Your task to perform on an android device: open app "Pinterest" (install if not already installed), go to login, and select forgot password Image 0: 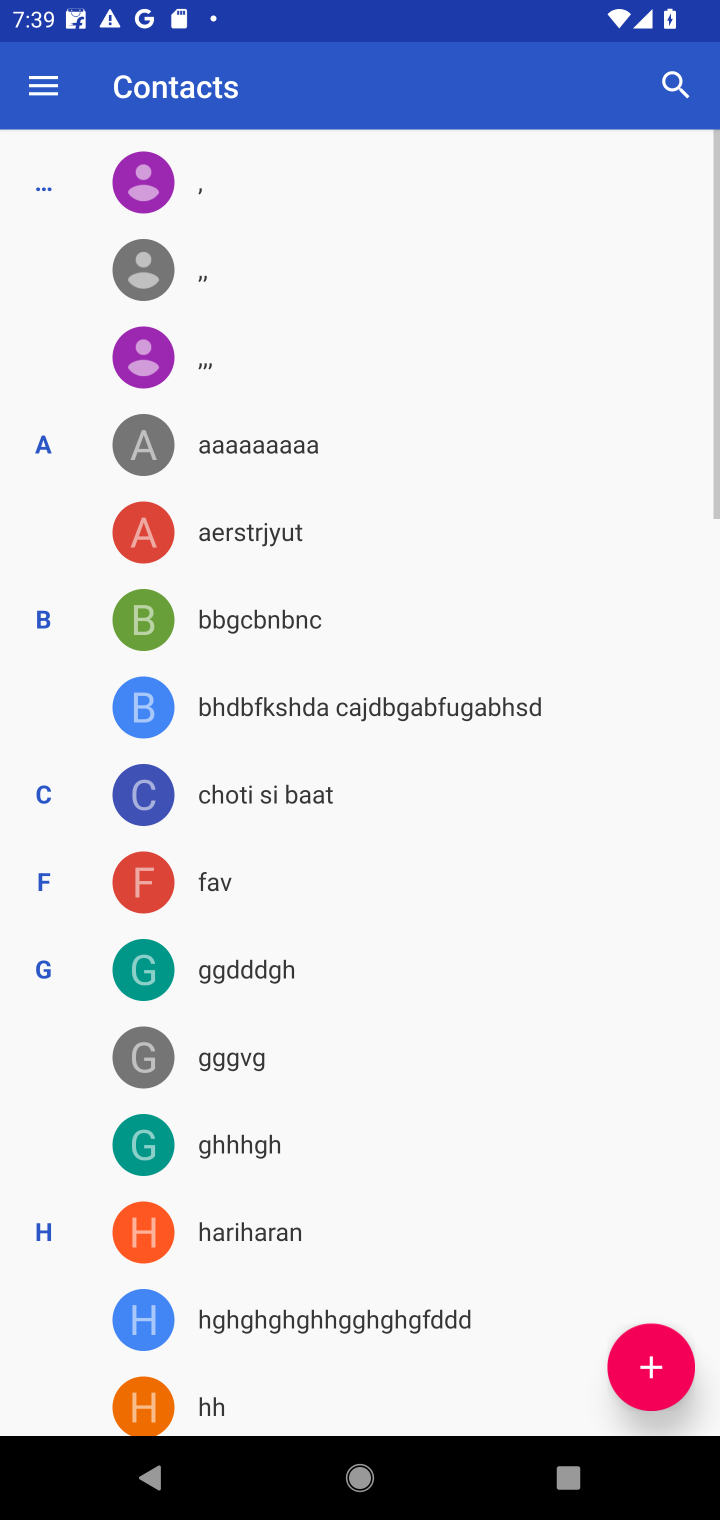
Step 0: press home button
Your task to perform on an android device: open app "Pinterest" (install if not already installed), go to login, and select forgot password Image 1: 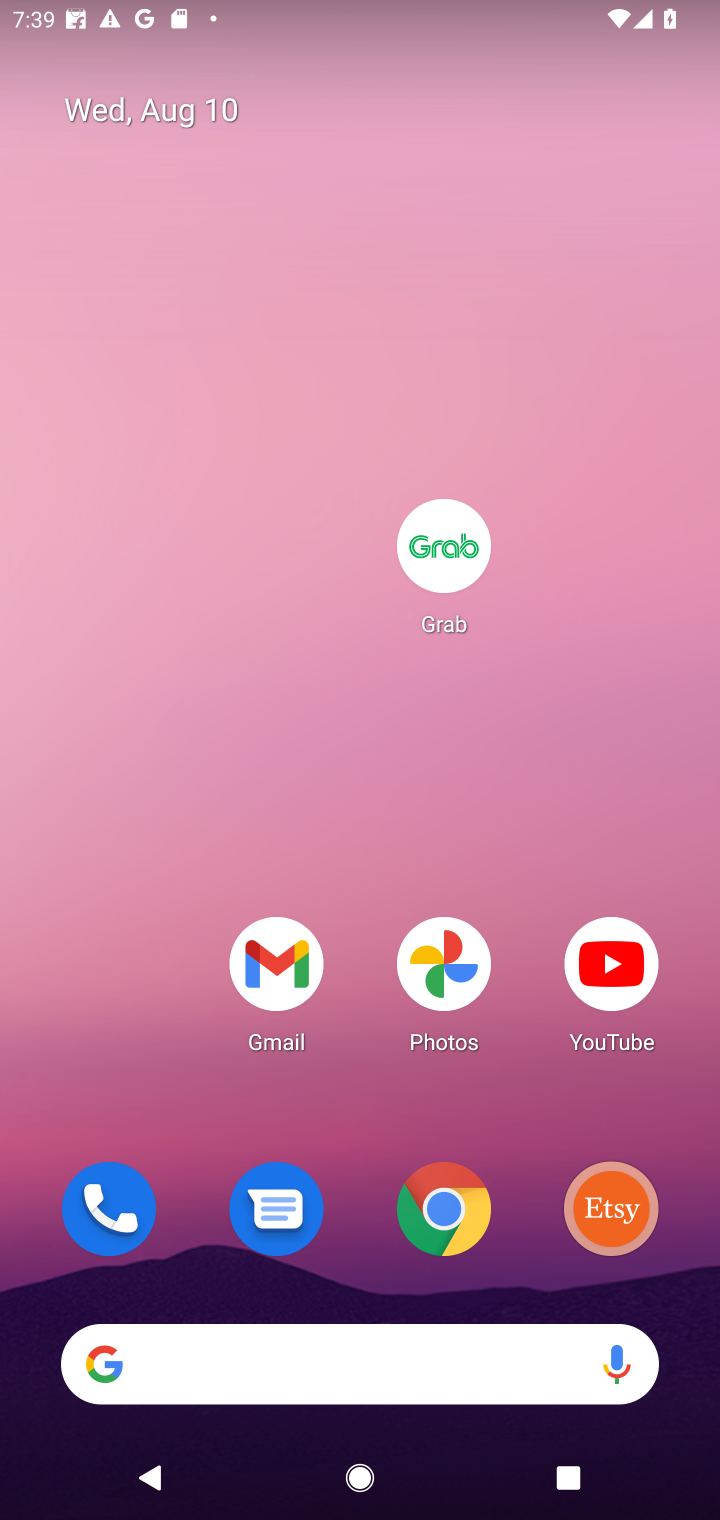
Step 1: drag from (391, 1320) to (458, 11)
Your task to perform on an android device: open app "Pinterest" (install if not already installed), go to login, and select forgot password Image 2: 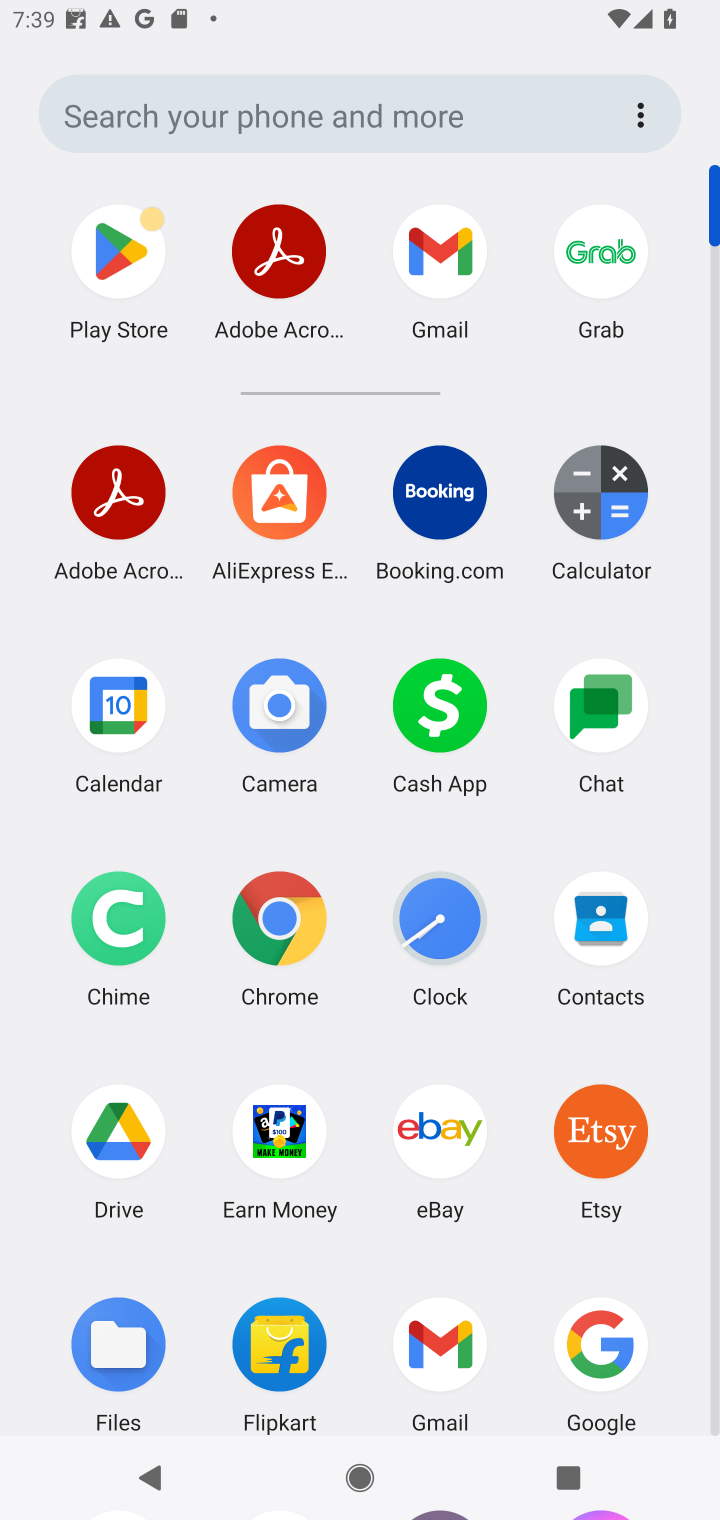
Step 2: click (159, 236)
Your task to perform on an android device: open app "Pinterest" (install if not already installed), go to login, and select forgot password Image 3: 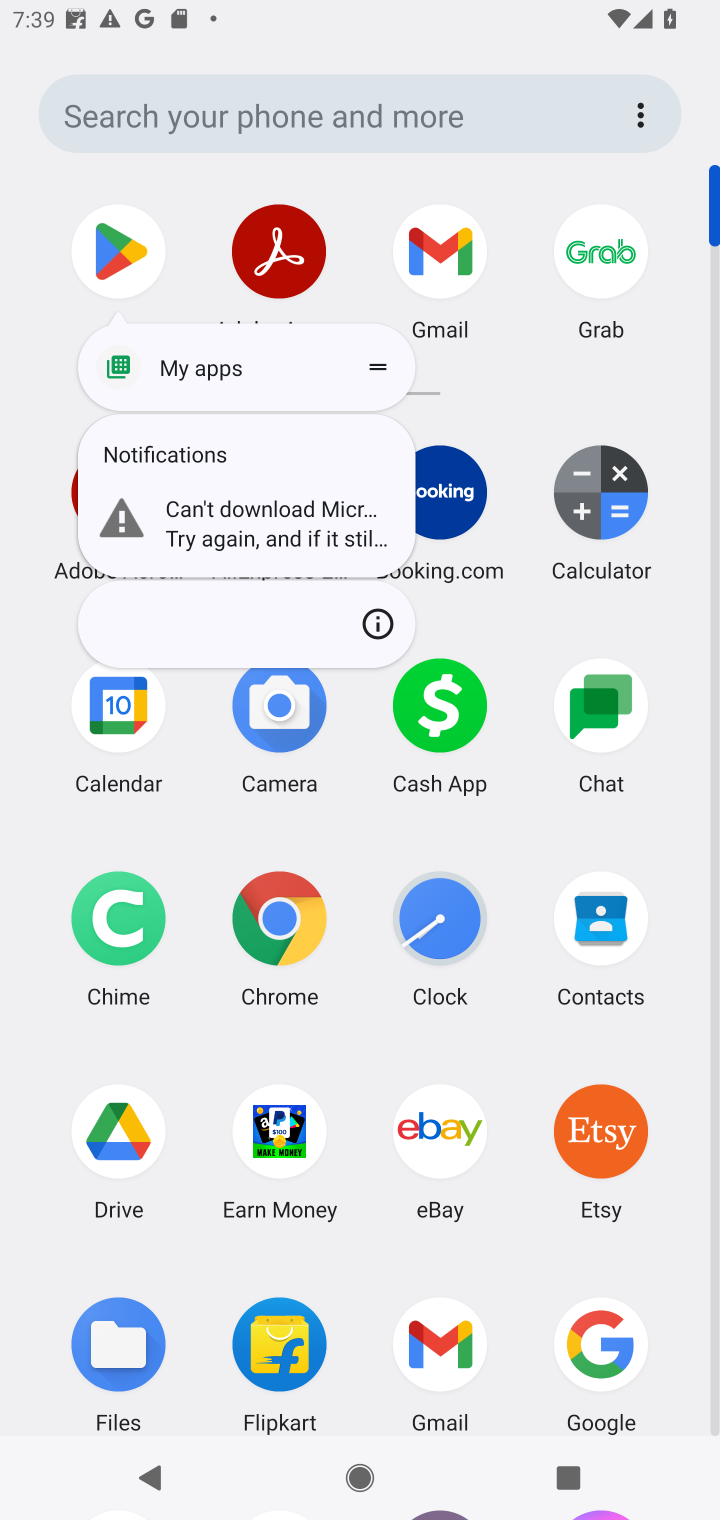
Step 3: click (72, 253)
Your task to perform on an android device: open app "Pinterest" (install if not already installed), go to login, and select forgot password Image 4: 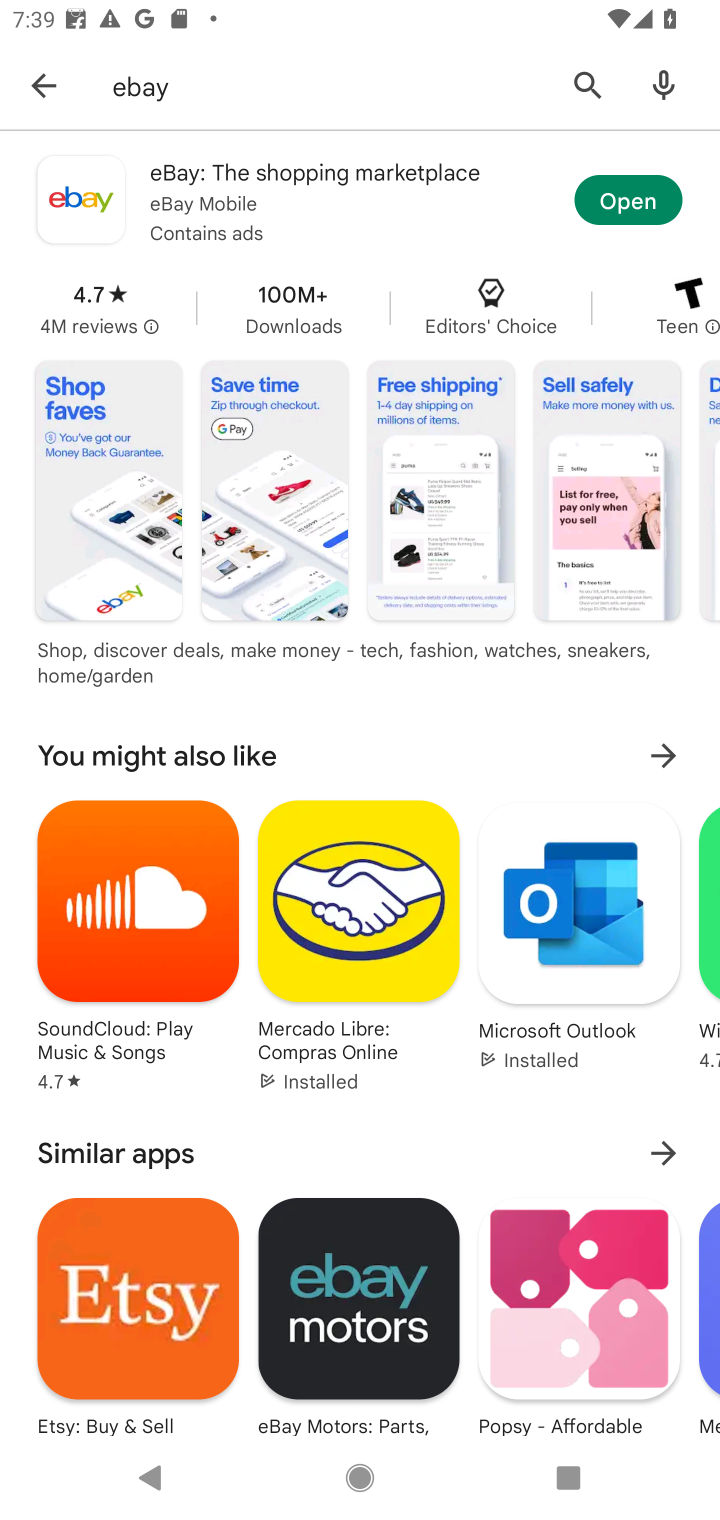
Step 4: click (540, 86)
Your task to perform on an android device: open app "Pinterest" (install if not already installed), go to login, and select forgot password Image 5: 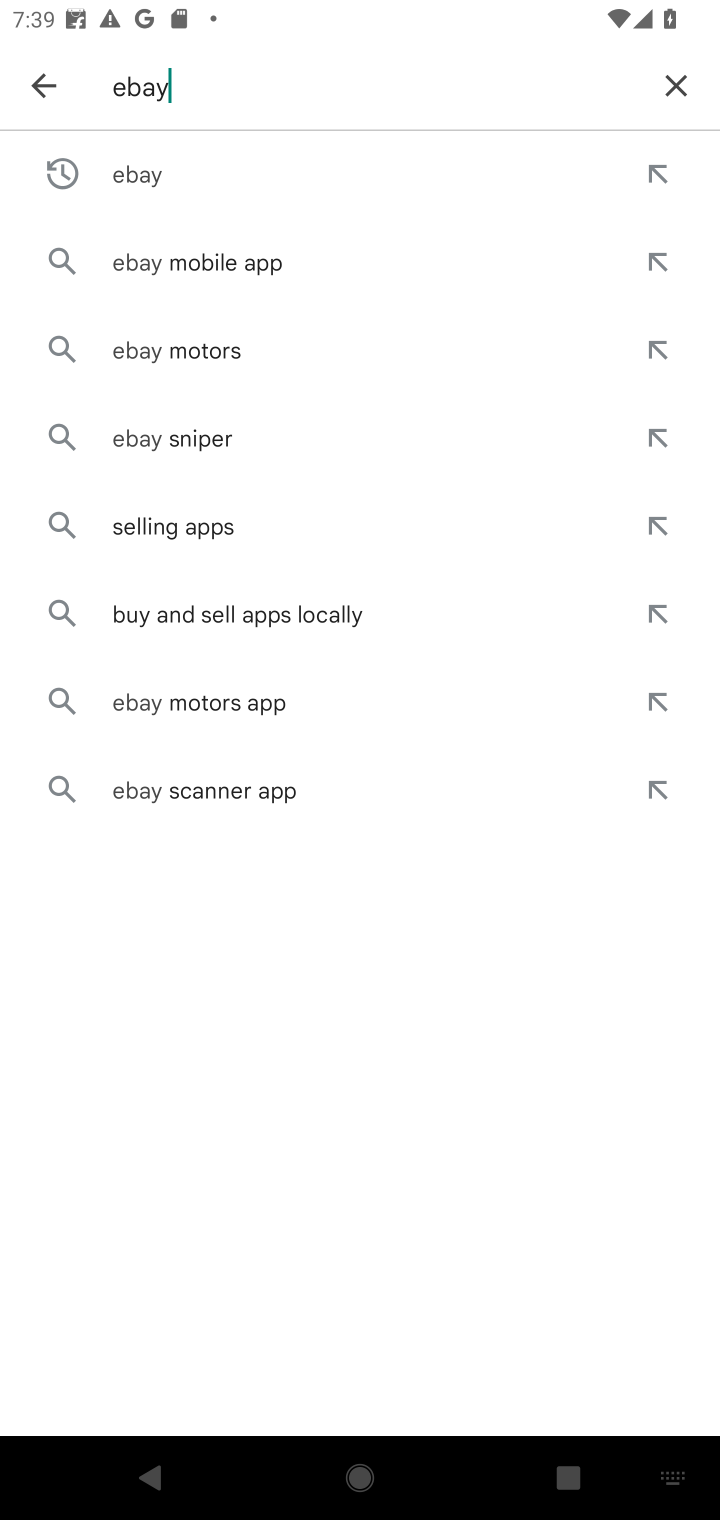
Step 5: click (680, 86)
Your task to perform on an android device: open app "Pinterest" (install if not already installed), go to login, and select forgot password Image 6: 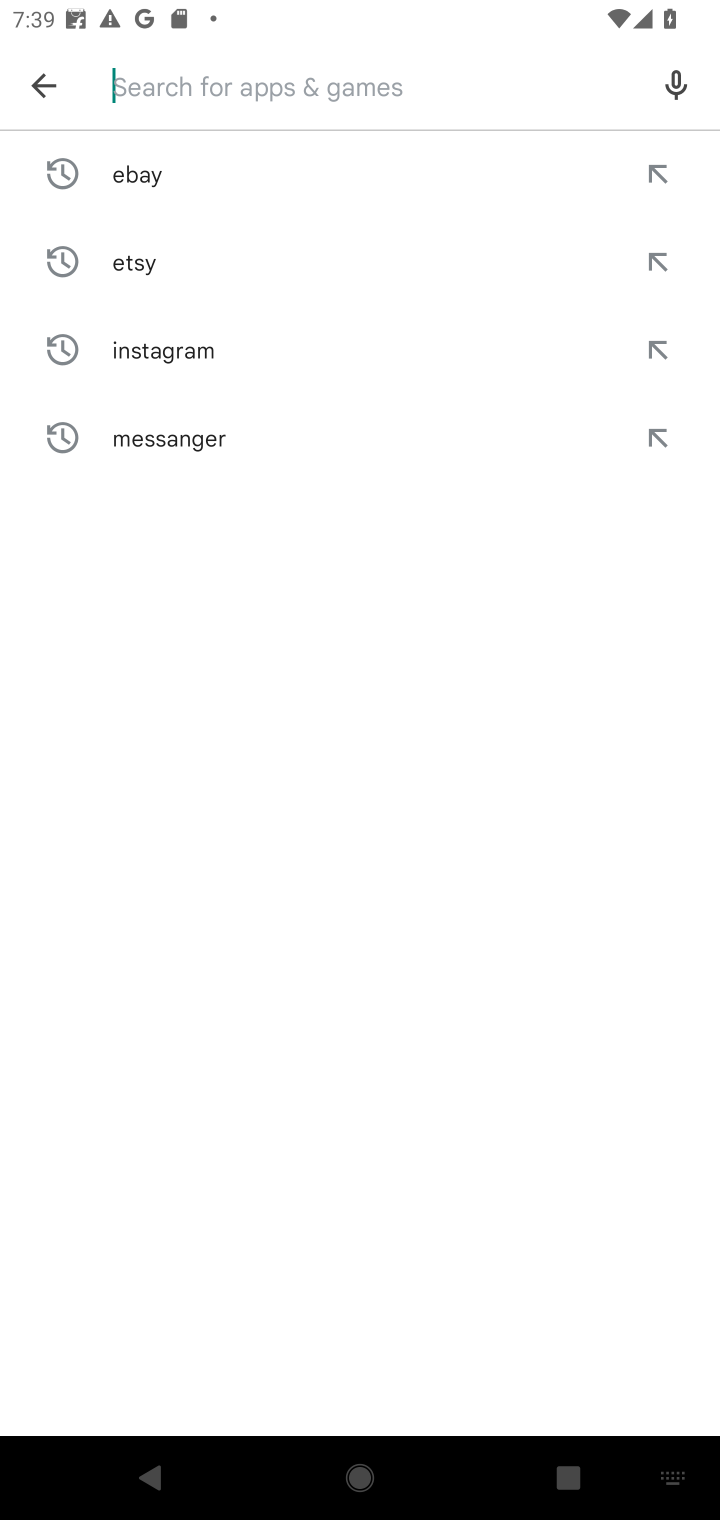
Step 6: type "pinterrest"
Your task to perform on an android device: open app "Pinterest" (install if not already installed), go to login, and select forgot password Image 7: 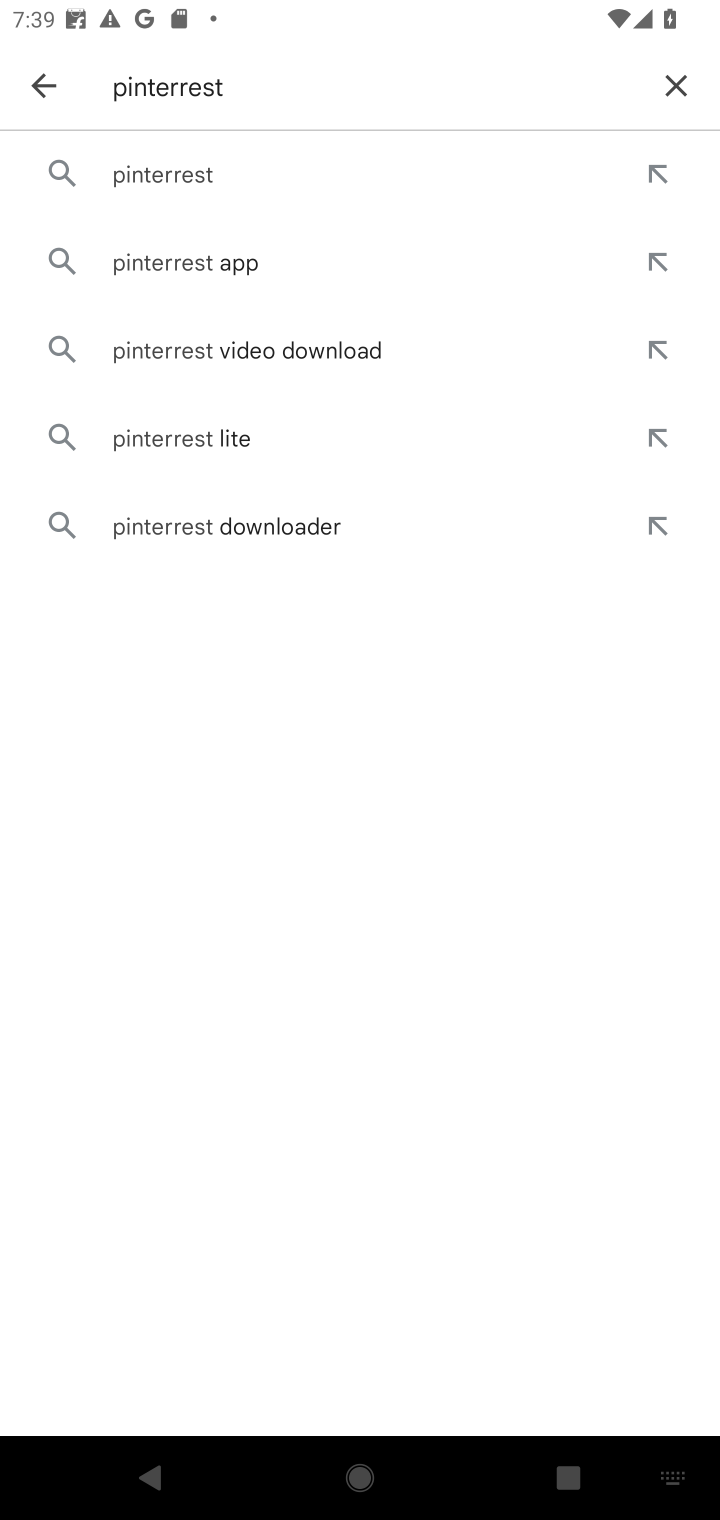
Step 7: click (348, 143)
Your task to perform on an android device: open app "Pinterest" (install if not already installed), go to login, and select forgot password Image 8: 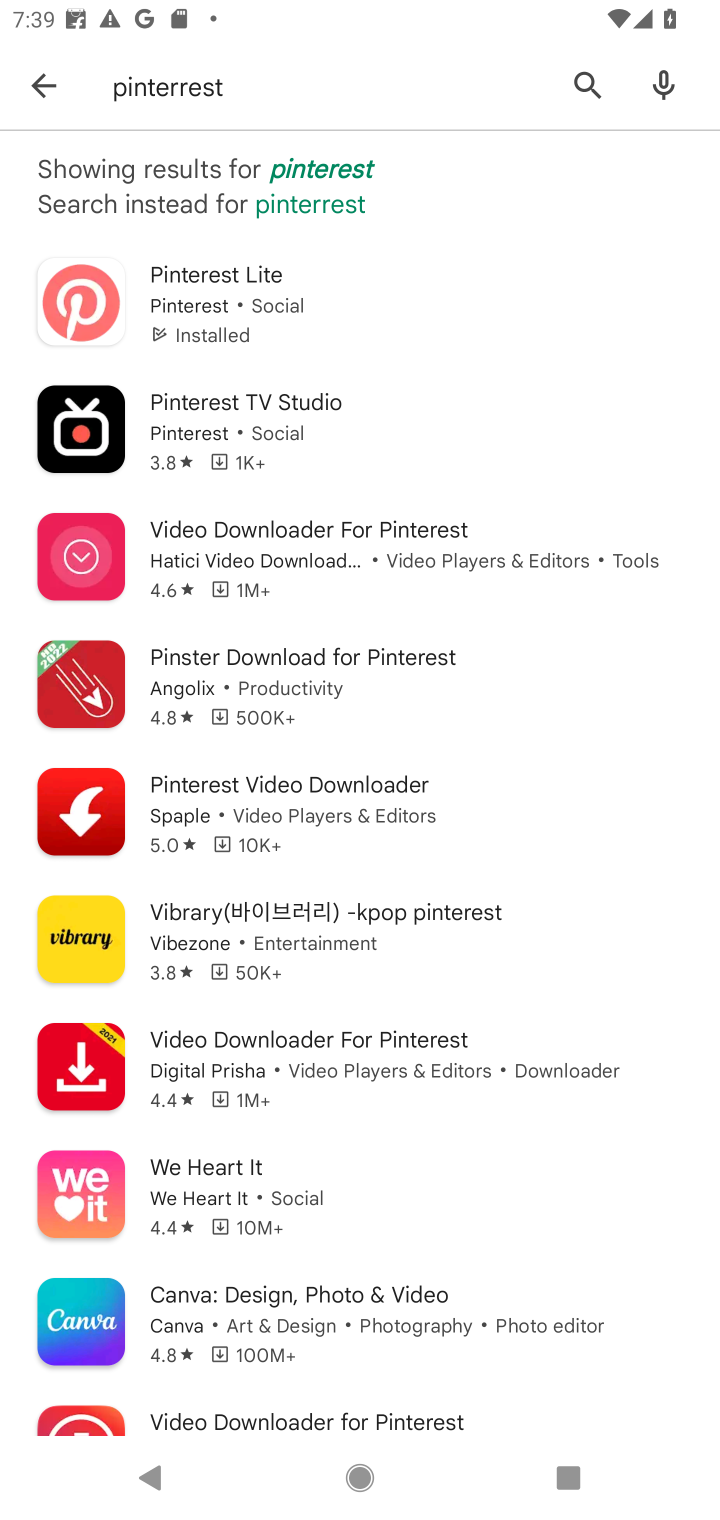
Step 8: click (402, 315)
Your task to perform on an android device: open app "Pinterest" (install if not already installed), go to login, and select forgot password Image 9: 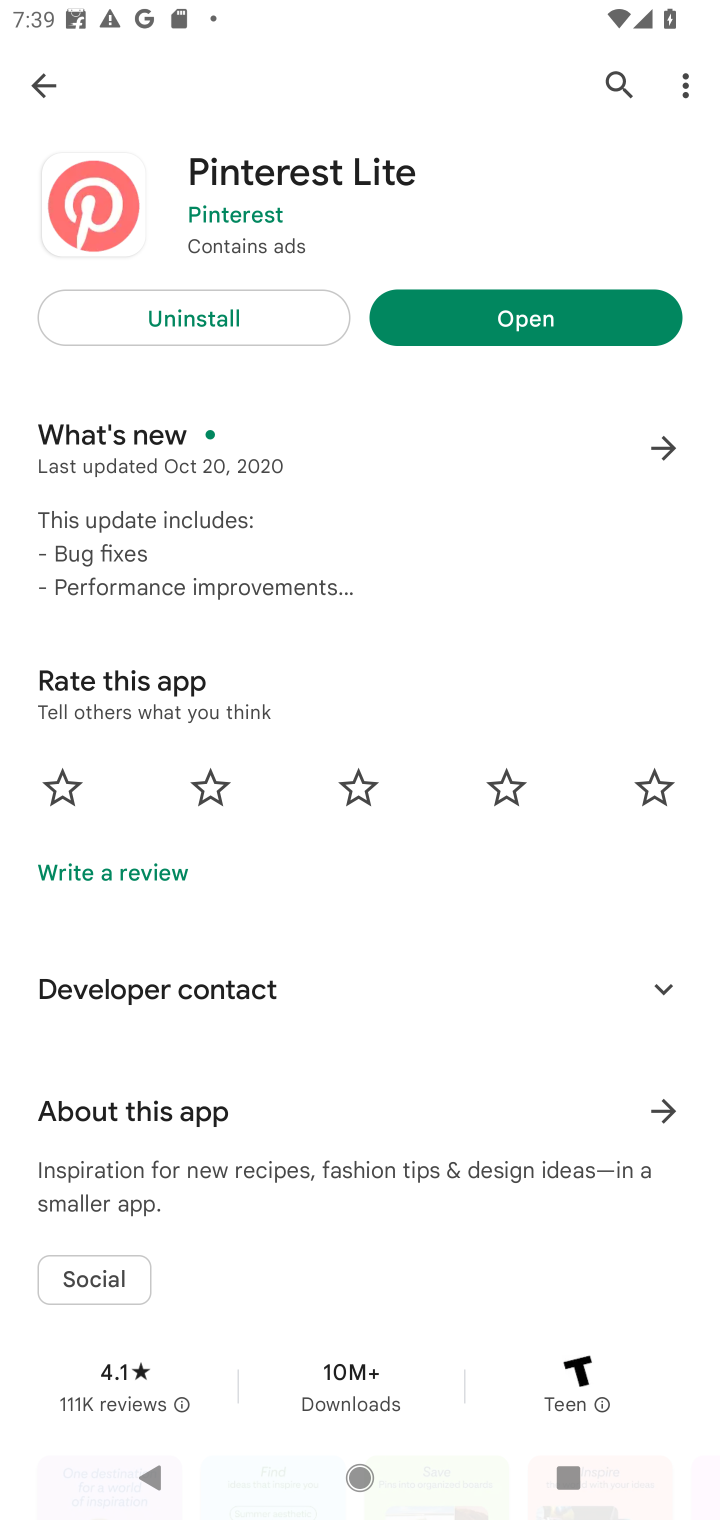
Step 9: click (539, 316)
Your task to perform on an android device: open app "Pinterest" (install if not already installed), go to login, and select forgot password Image 10: 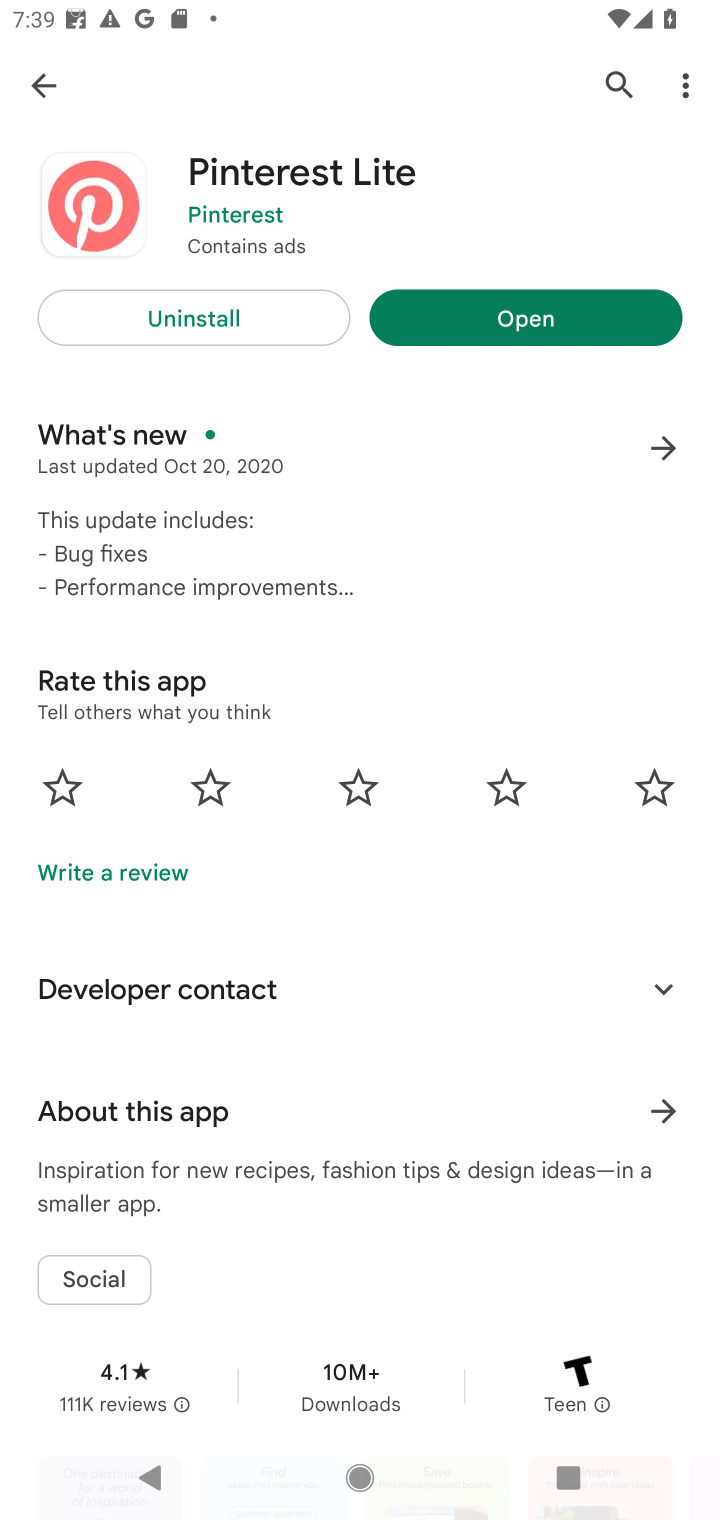
Step 10: task complete